Your task to perform on an android device: see creations saved in the google photos Image 0: 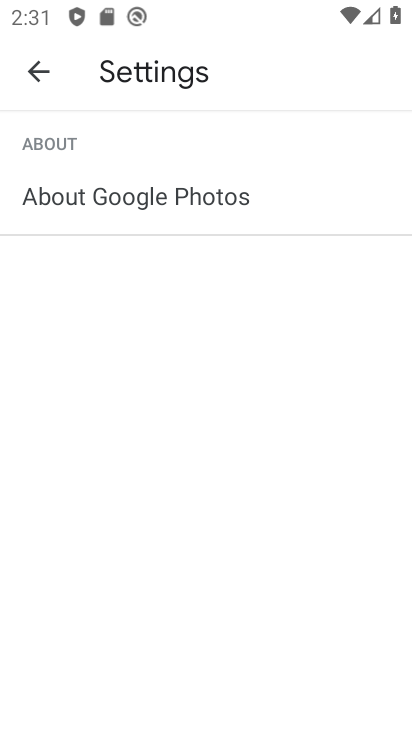
Step 0: click (42, 75)
Your task to perform on an android device: see creations saved in the google photos Image 1: 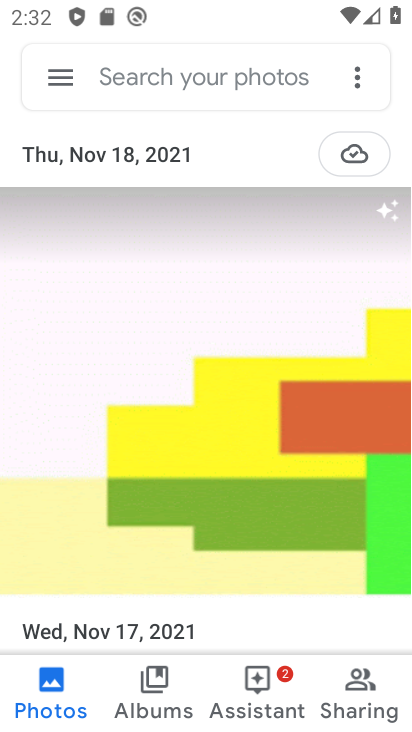
Step 1: task complete